Your task to perform on an android device: stop showing notifications on the lock screen Image 0: 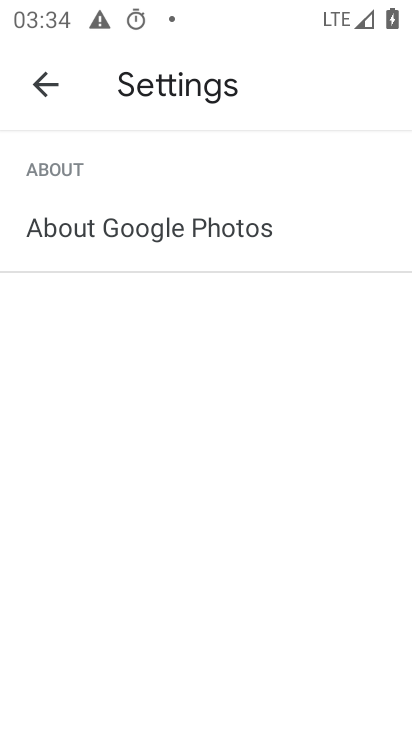
Step 0: press home button
Your task to perform on an android device: stop showing notifications on the lock screen Image 1: 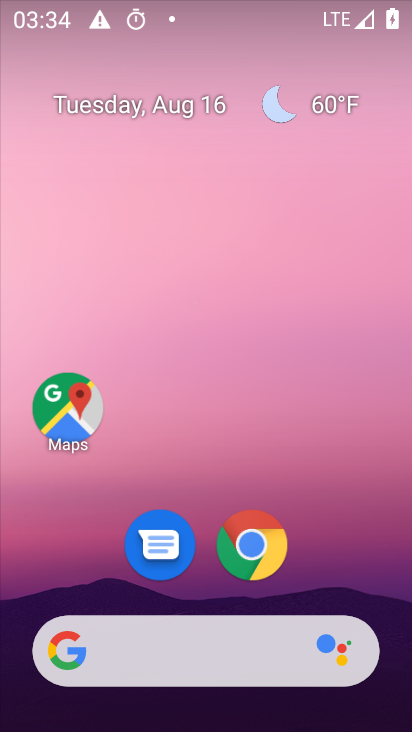
Step 1: drag from (209, 620) to (231, 193)
Your task to perform on an android device: stop showing notifications on the lock screen Image 2: 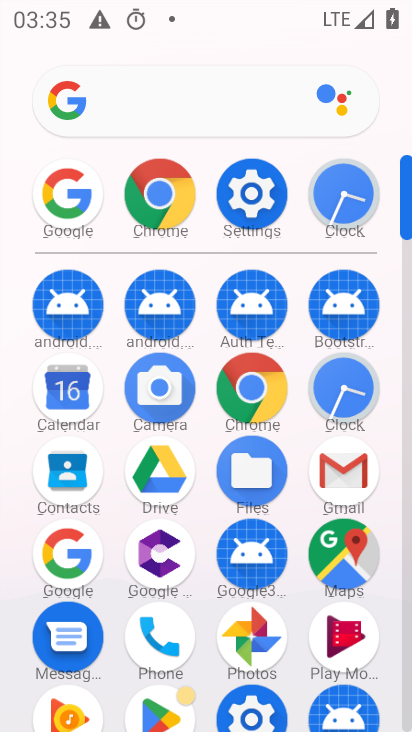
Step 2: click (246, 209)
Your task to perform on an android device: stop showing notifications on the lock screen Image 3: 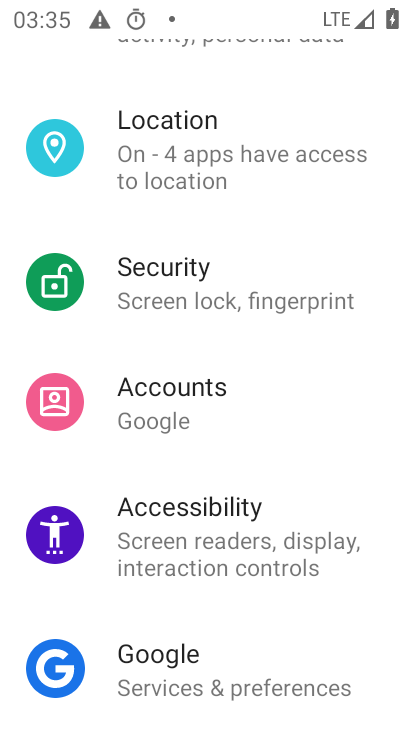
Step 3: drag from (183, 163) to (190, 470)
Your task to perform on an android device: stop showing notifications on the lock screen Image 4: 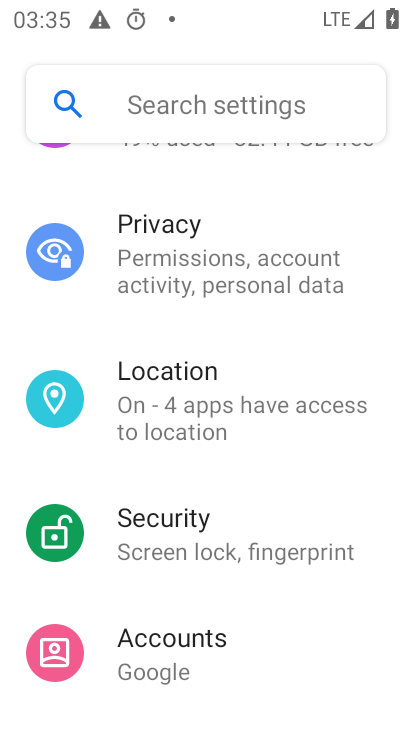
Step 4: click (151, 260)
Your task to perform on an android device: stop showing notifications on the lock screen Image 5: 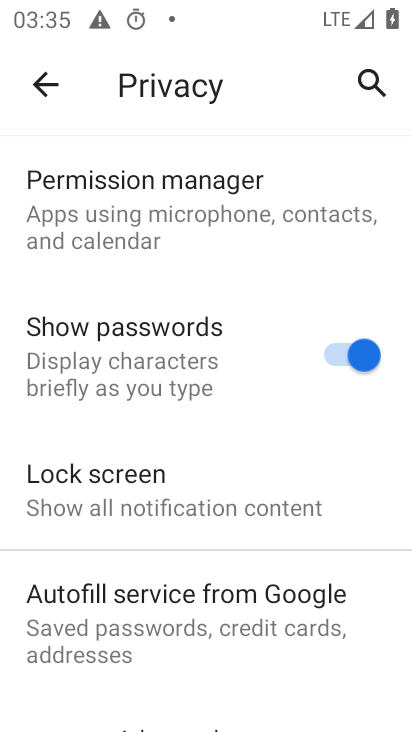
Step 5: click (128, 495)
Your task to perform on an android device: stop showing notifications on the lock screen Image 6: 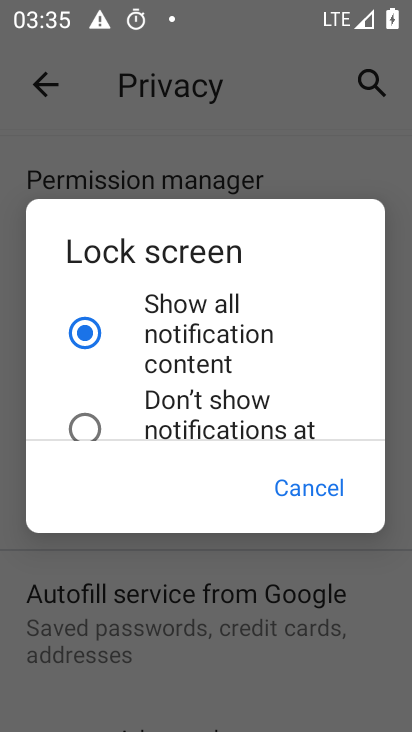
Step 6: click (91, 421)
Your task to perform on an android device: stop showing notifications on the lock screen Image 7: 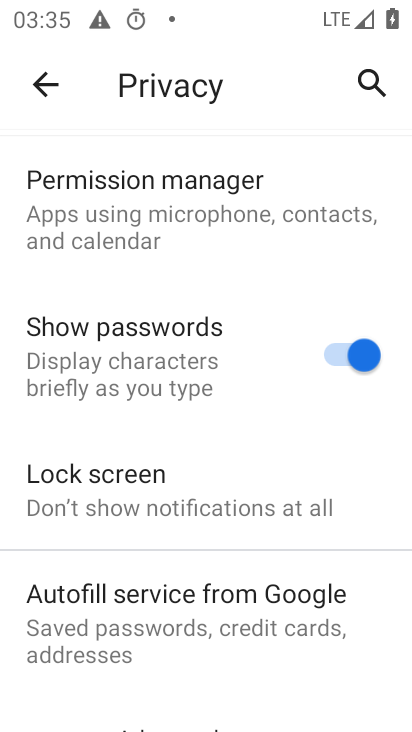
Step 7: task complete